Your task to perform on an android device: What's the weather? Image 0: 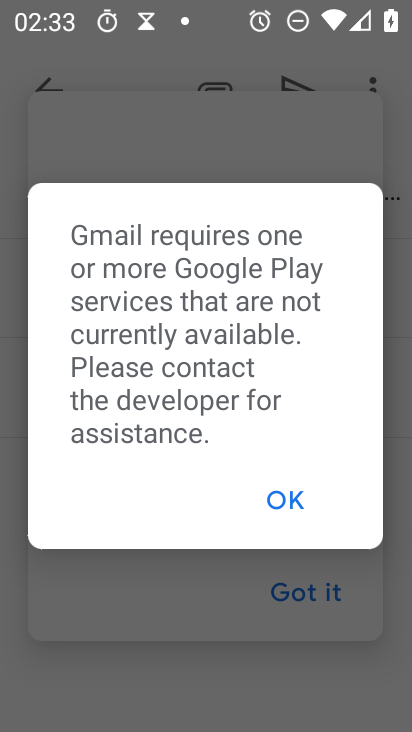
Step 0: press home button
Your task to perform on an android device: What's the weather? Image 1: 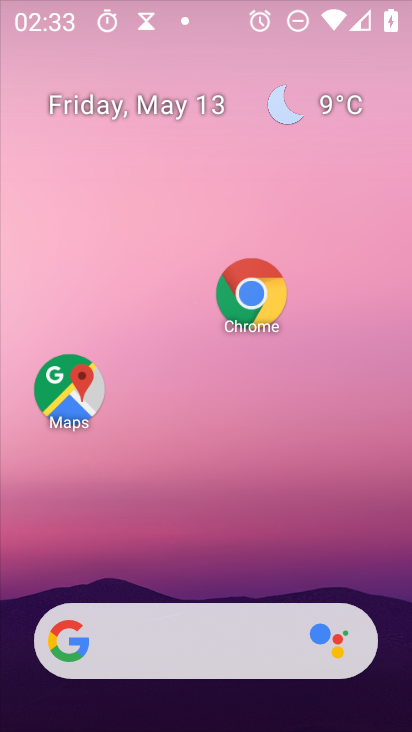
Step 1: press home button
Your task to perform on an android device: What's the weather? Image 2: 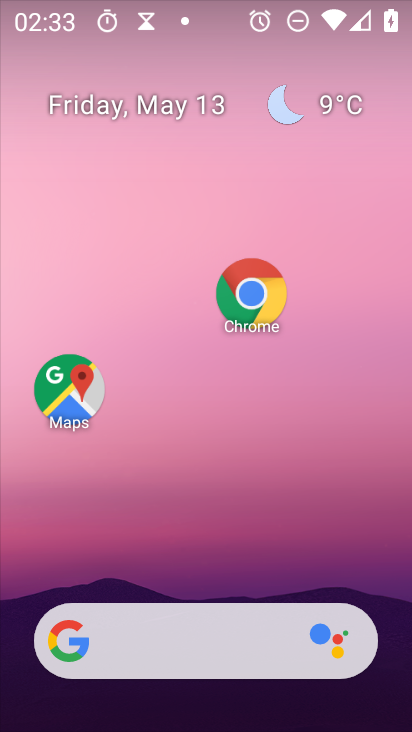
Step 2: click (346, 111)
Your task to perform on an android device: What's the weather? Image 3: 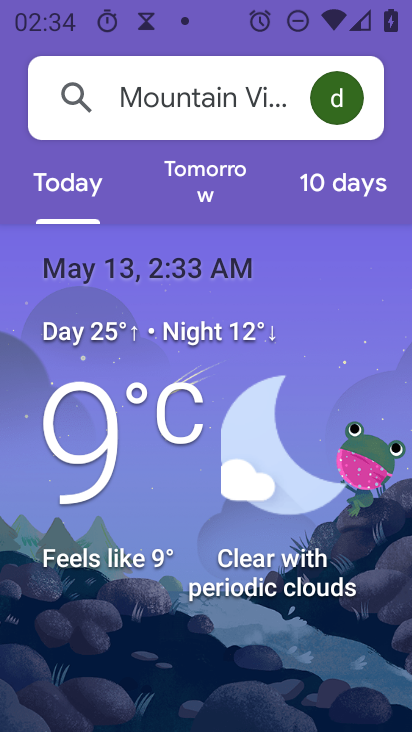
Step 3: task complete